Your task to perform on an android device: turn off notifications in google photos Image 0: 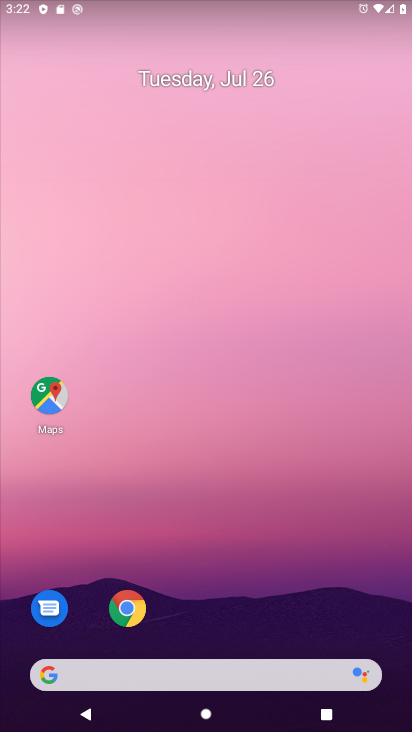
Step 0: drag from (398, 701) to (315, 136)
Your task to perform on an android device: turn off notifications in google photos Image 1: 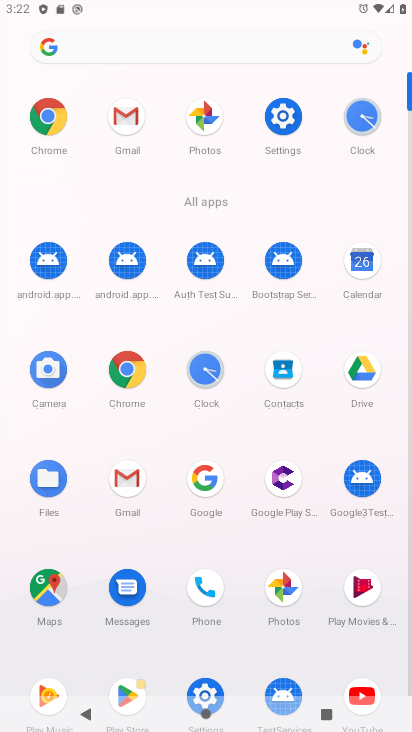
Step 1: click (278, 585)
Your task to perform on an android device: turn off notifications in google photos Image 2: 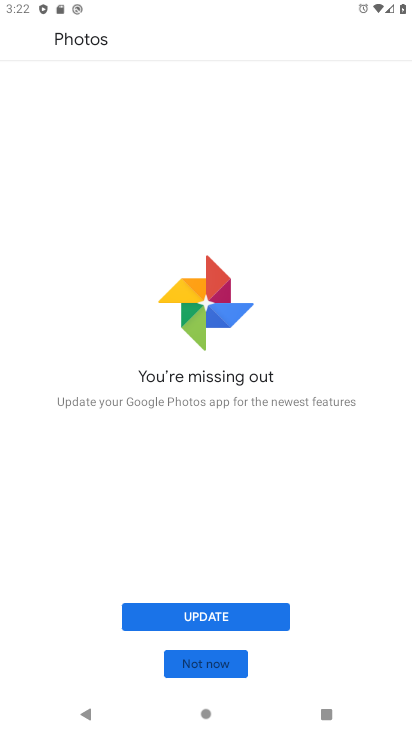
Step 2: click (250, 613)
Your task to perform on an android device: turn off notifications in google photos Image 3: 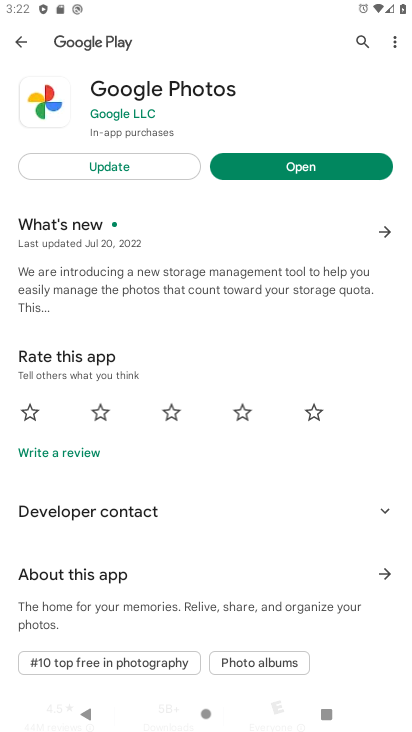
Step 3: click (125, 161)
Your task to perform on an android device: turn off notifications in google photos Image 4: 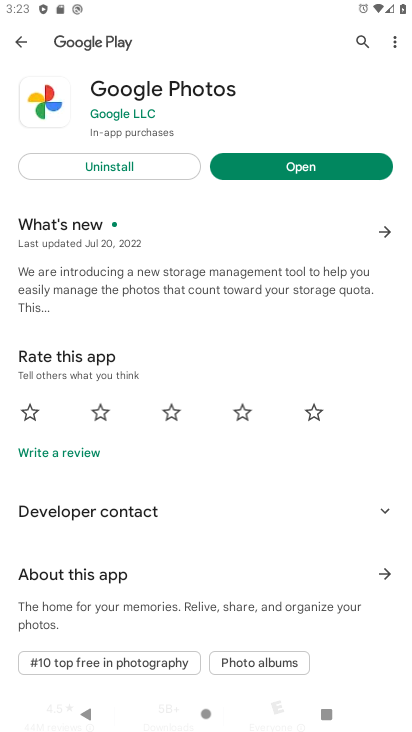
Step 4: click (327, 175)
Your task to perform on an android device: turn off notifications in google photos Image 5: 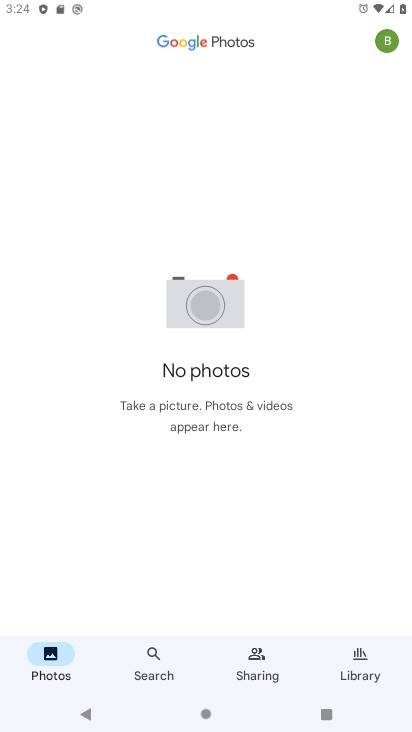
Step 5: task complete